Your task to perform on an android device: change notifications settings Image 0: 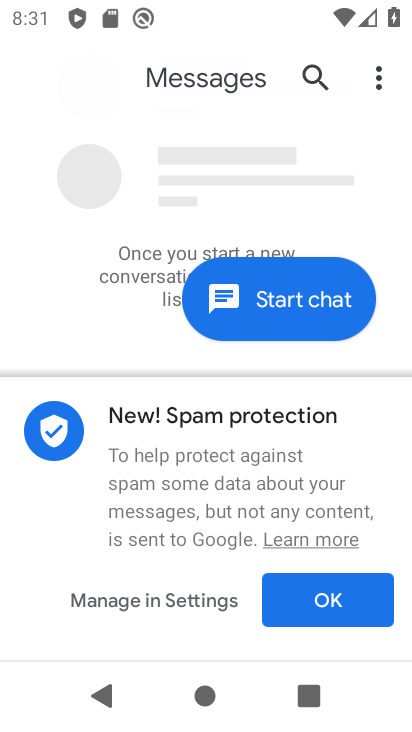
Step 0: press home button
Your task to perform on an android device: change notifications settings Image 1: 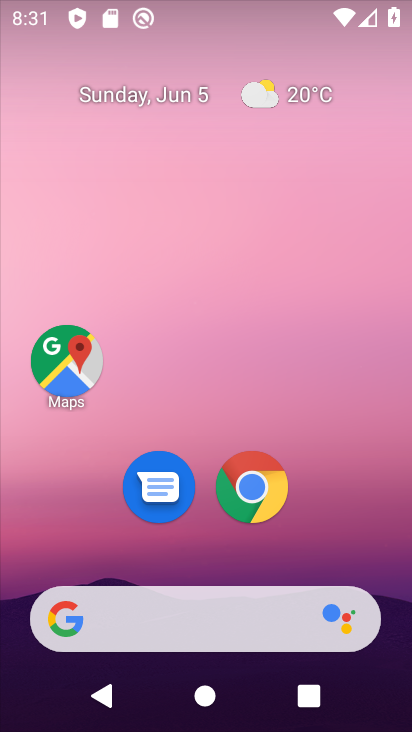
Step 1: drag from (199, 530) to (213, 170)
Your task to perform on an android device: change notifications settings Image 2: 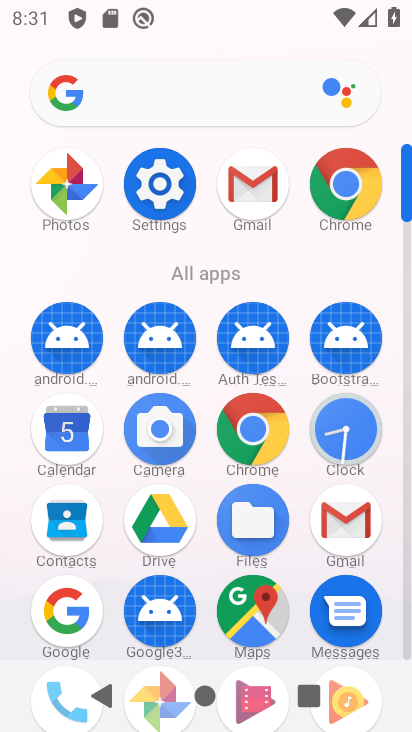
Step 2: click (156, 181)
Your task to perform on an android device: change notifications settings Image 3: 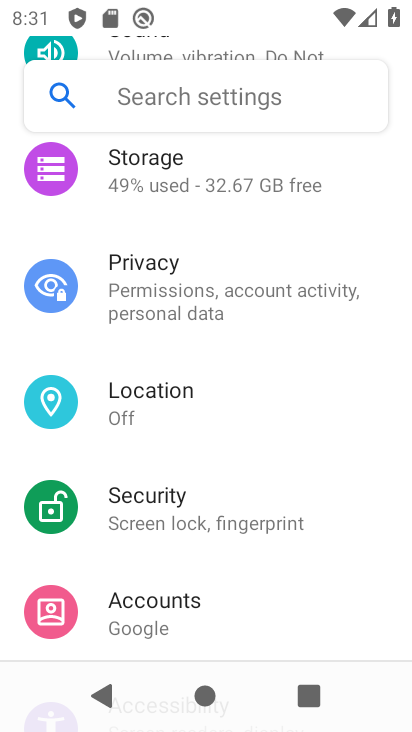
Step 3: drag from (182, 229) to (158, 587)
Your task to perform on an android device: change notifications settings Image 4: 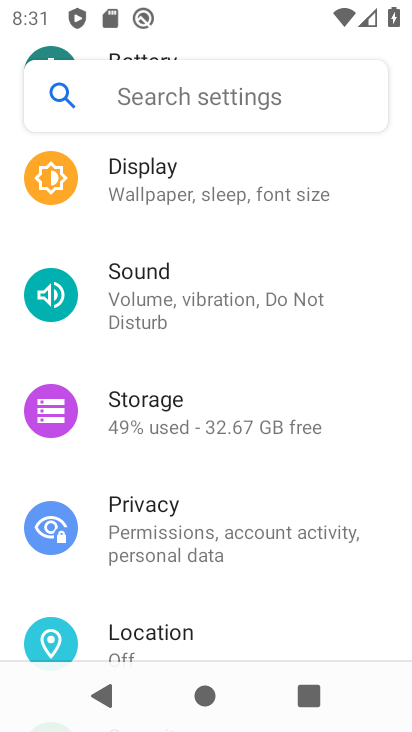
Step 4: drag from (178, 344) to (180, 582)
Your task to perform on an android device: change notifications settings Image 5: 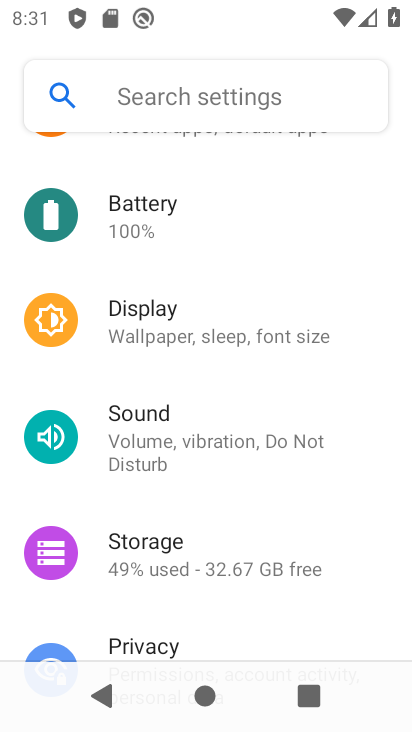
Step 5: drag from (183, 194) to (177, 567)
Your task to perform on an android device: change notifications settings Image 6: 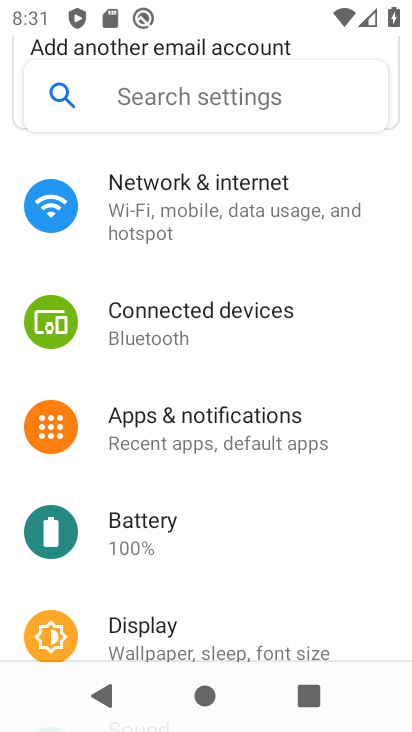
Step 6: click (176, 423)
Your task to perform on an android device: change notifications settings Image 7: 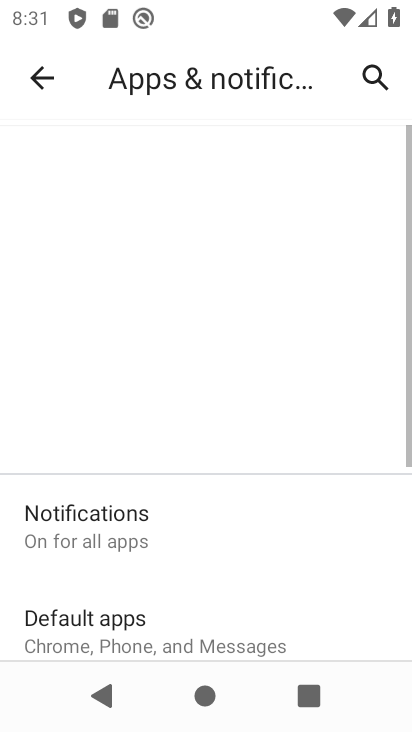
Step 7: drag from (173, 572) to (196, 359)
Your task to perform on an android device: change notifications settings Image 8: 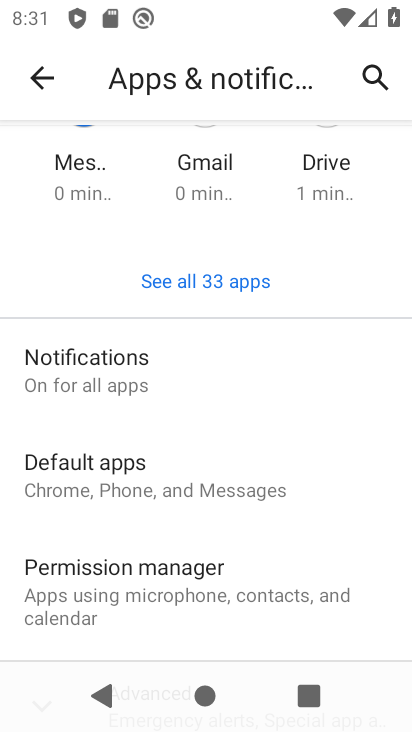
Step 8: click (117, 375)
Your task to perform on an android device: change notifications settings Image 9: 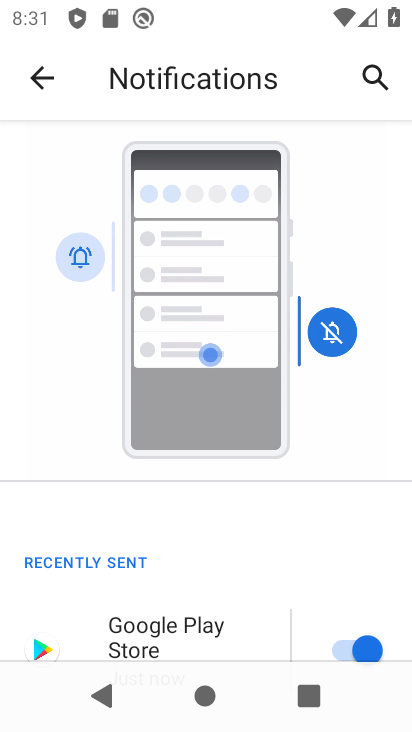
Step 9: drag from (181, 521) to (252, 126)
Your task to perform on an android device: change notifications settings Image 10: 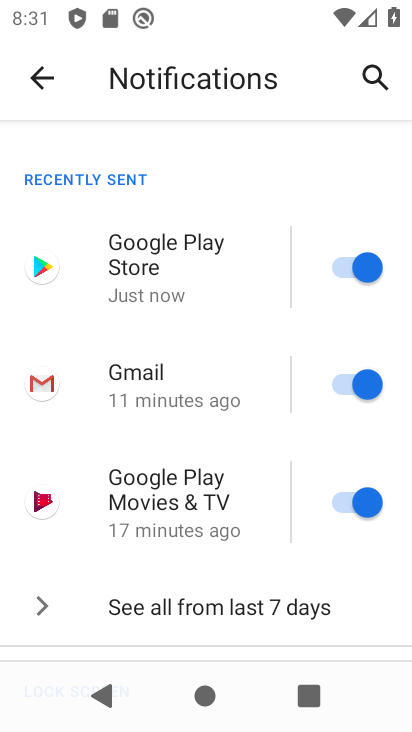
Step 10: click (155, 616)
Your task to perform on an android device: change notifications settings Image 11: 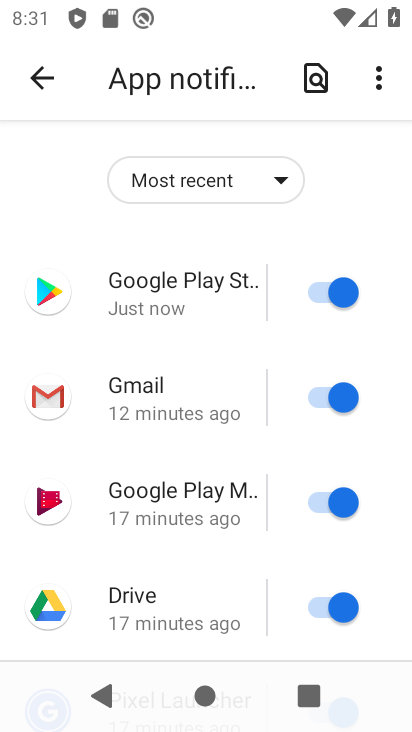
Step 11: click (313, 279)
Your task to perform on an android device: change notifications settings Image 12: 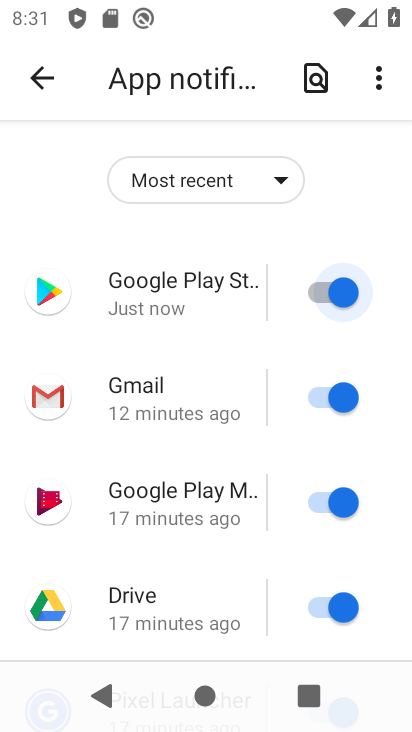
Step 12: click (320, 405)
Your task to perform on an android device: change notifications settings Image 13: 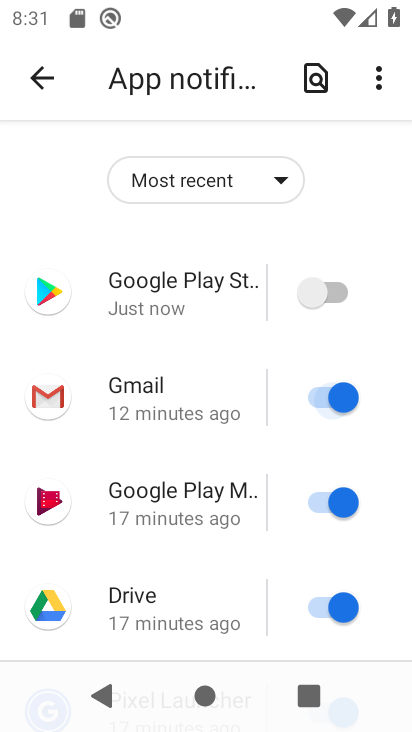
Step 13: click (317, 478)
Your task to perform on an android device: change notifications settings Image 14: 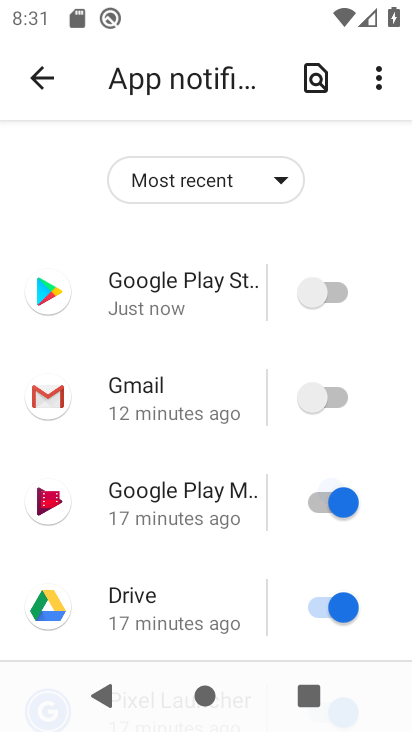
Step 14: click (320, 585)
Your task to perform on an android device: change notifications settings Image 15: 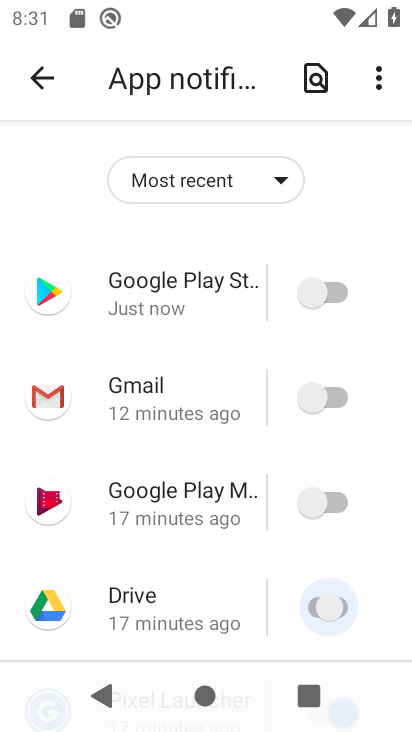
Step 15: drag from (201, 590) to (225, 198)
Your task to perform on an android device: change notifications settings Image 16: 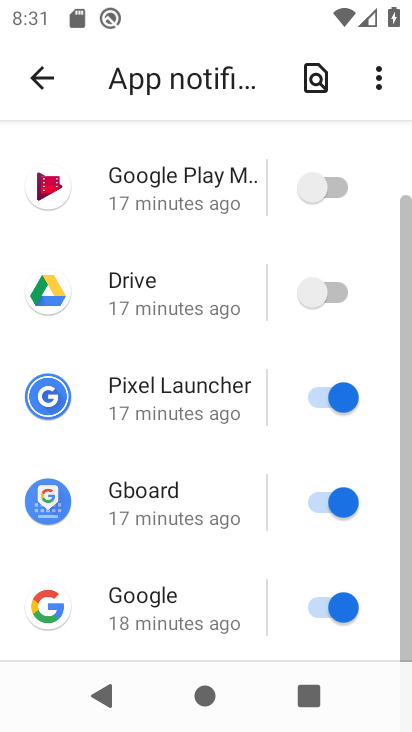
Step 16: drag from (322, 394) to (312, 596)
Your task to perform on an android device: change notifications settings Image 17: 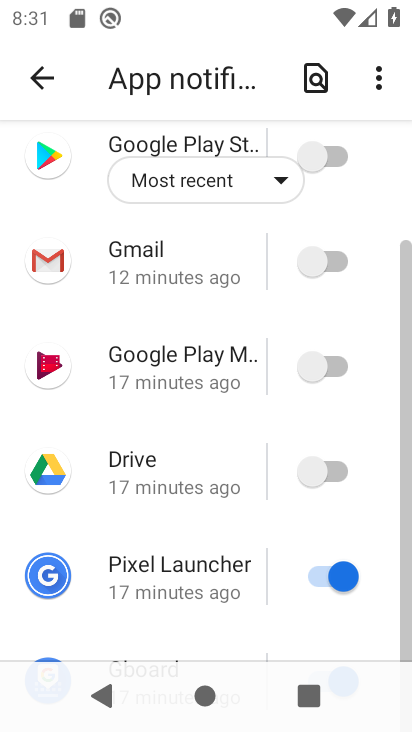
Step 17: drag from (244, 611) to (270, 237)
Your task to perform on an android device: change notifications settings Image 18: 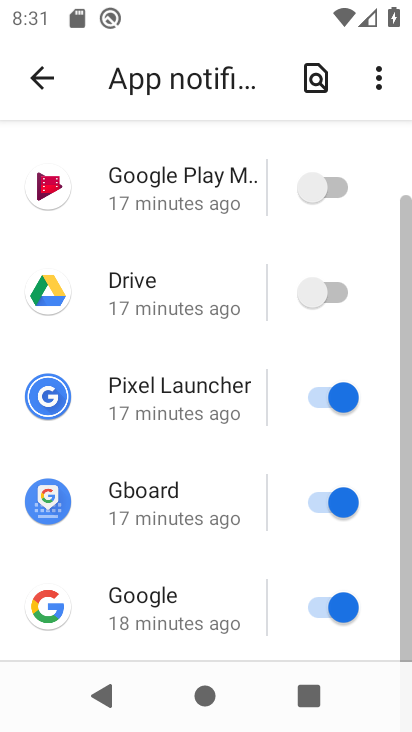
Step 18: click (312, 397)
Your task to perform on an android device: change notifications settings Image 19: 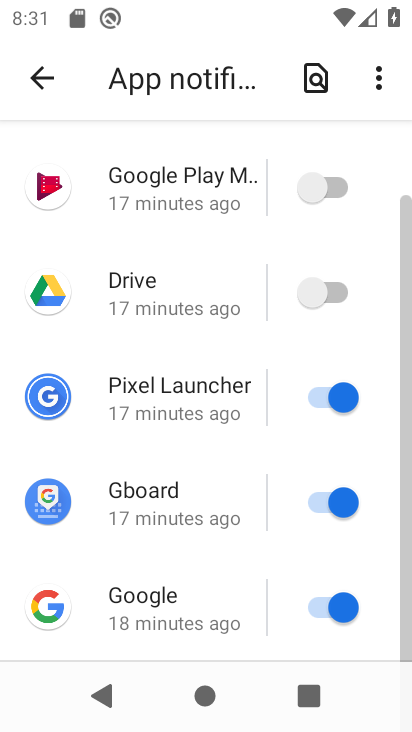
Step 19: click (295, 478)
Your task to perform on an android device: change notifications settings Image 20: 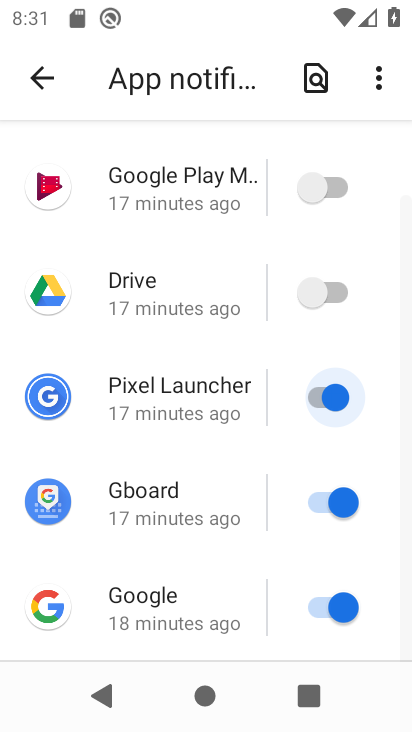
Step 20: click (311, 614)
Your task to perform on an android device: change notifications settings Image 21: 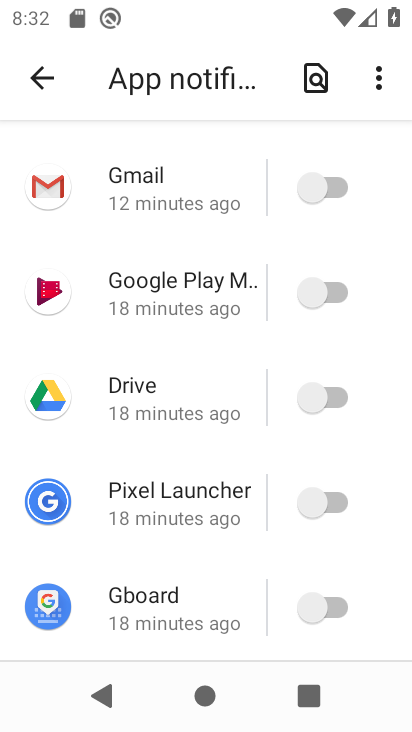
Step 21: task complete